Your task to perform on an android device: turn pop-ups on in chrome Image 0: 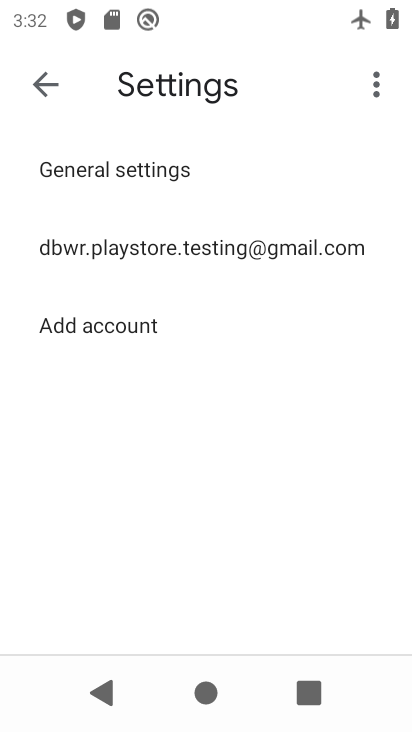
Step 0: press home button
Your task to perform on an android device: turn pop-ups on in chrome Image 1: 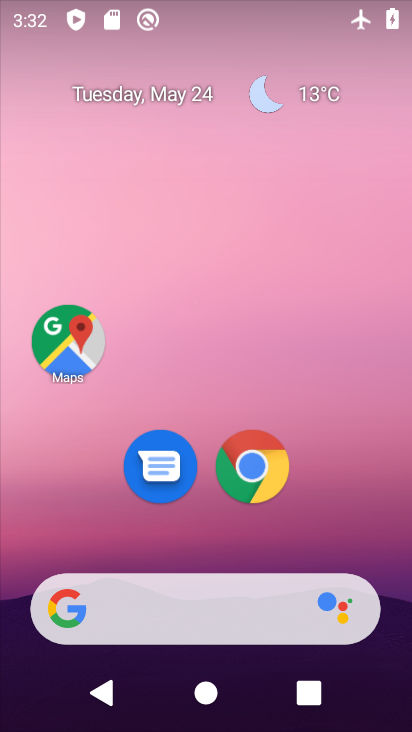
Step 1: click (257, 457)
Your task to perform on an android device: turn pop-ups on in chrome Image 2: 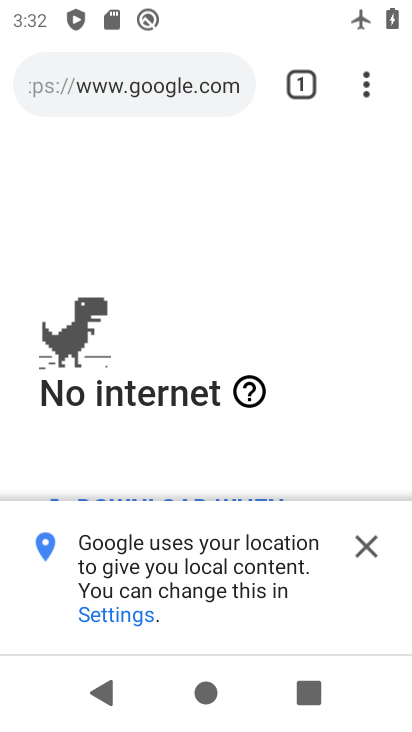
Step 2: drag from (327, 12) to (372, 0)
Your task to perform on an android device: turn pop-ups on in chrome Image 3: 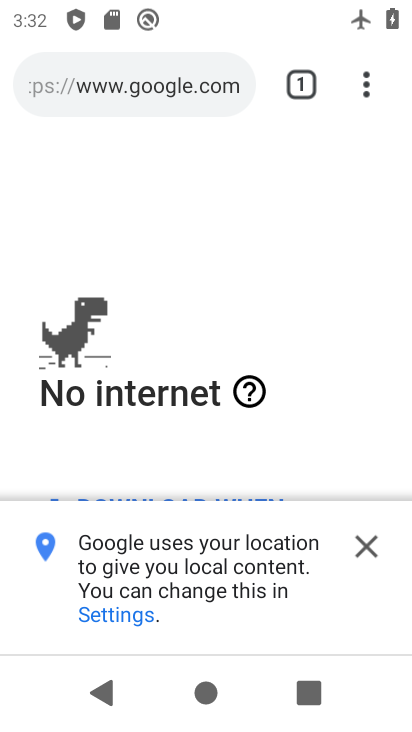
Step 3: click (366, 95)
Your task to perform on an android device: turn pop-ups on in chrome Image 4: 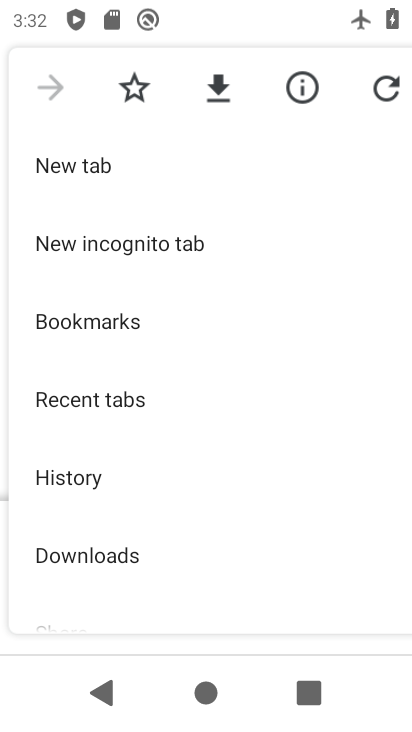
Step 4: drag from (248, 161) to (258, 128)
Your task to perform on an android device: turn pop-ups on in chrome Image 5: 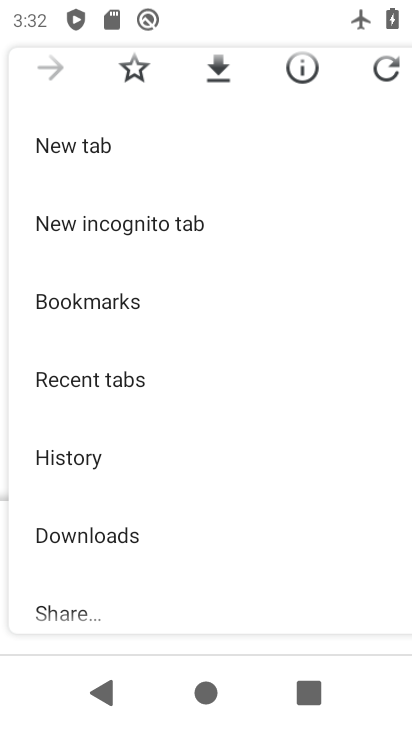
Step 5: drag from (185, 578) to (219, 140)
Your task to perform on an android device: turn pop-ups on in chrome Image 6: 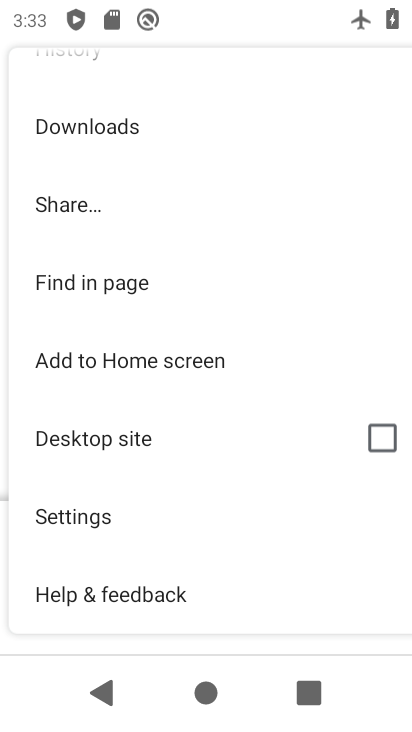
Step 6: drag from (143, 526) to (168, 343)
Your task to perform on an android device: turn pop-ups on in chrome Image 7: 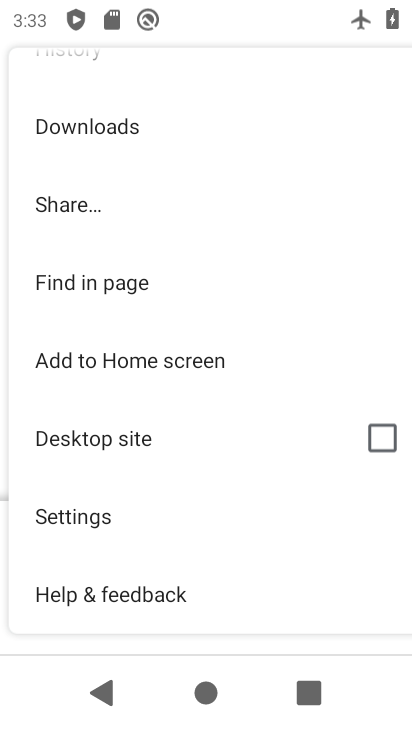
Step 7: click (87, 513)
Your task to perform on an android device: turn pop-ups on in chrome Image 8: 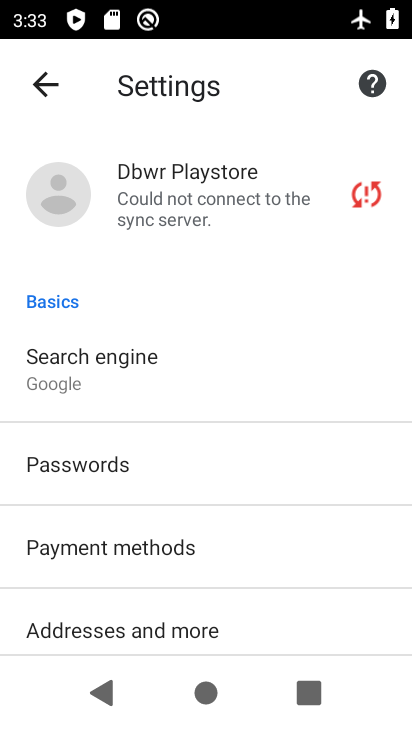
Step 8: drag from (224, 605) to (271, 250)
Your task to perform on an android device: turn pop-ups on in chrome Image 9: 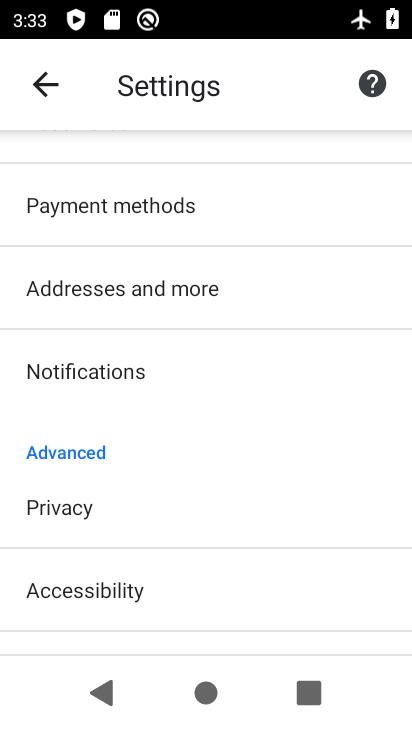
Step 9: drag from (215, 518) to (239, 233)
Your task to perform on an android device: turn pop-ups on in chrome Image 10: 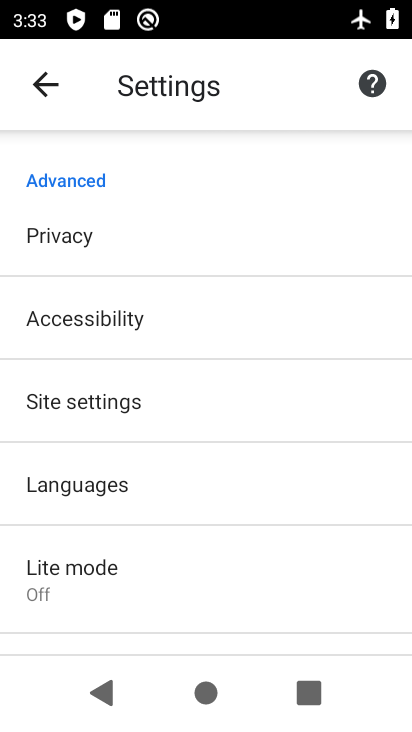
Step 10: click (103, 388)
Your task to perform on an android device: turn pop-ups on in chrome Image 11: 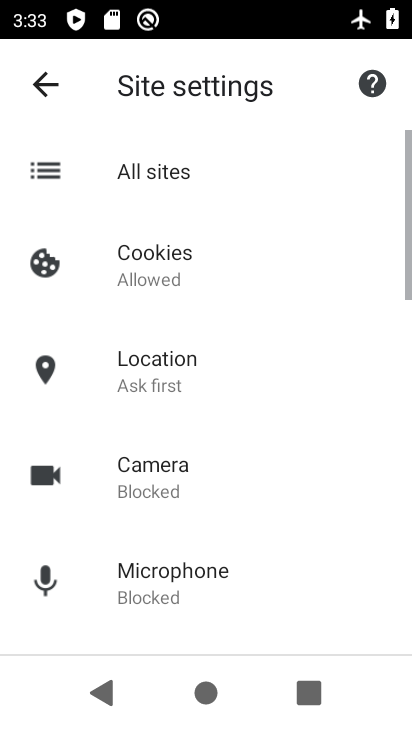
Step 11: drag from (294, 552) to (304, 125)
Your task to perform on an android device: turn pop-ups on in chrome Image 12: 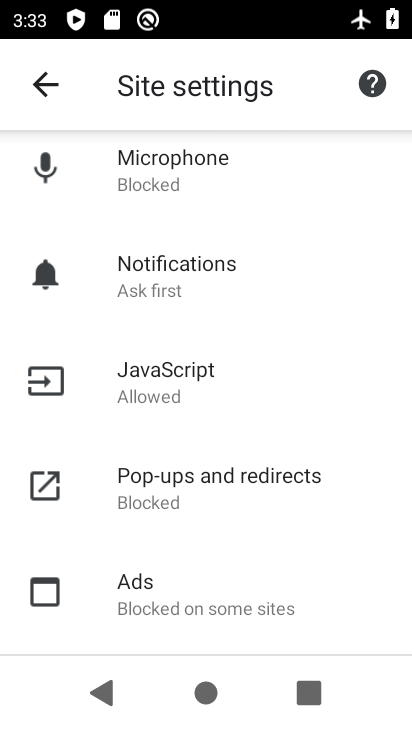
Step 12: click (208, 483)
Your task to perform on an android device: turn pop-ups on in chrome Image 13: 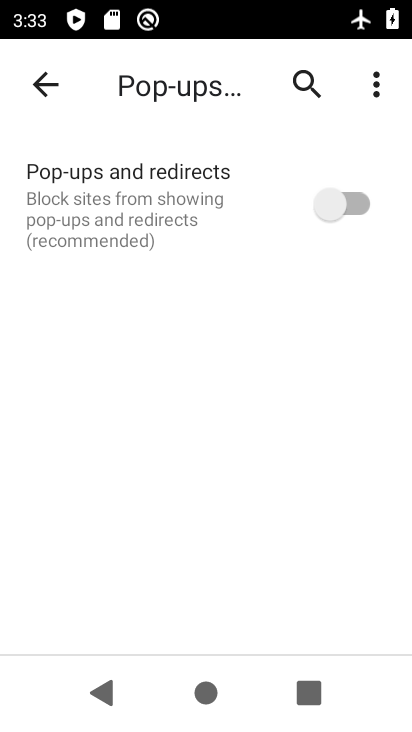
Step 13: click (336, 195)
Your task to perform on an android device: turn pop-ups on in chrome Image 14: 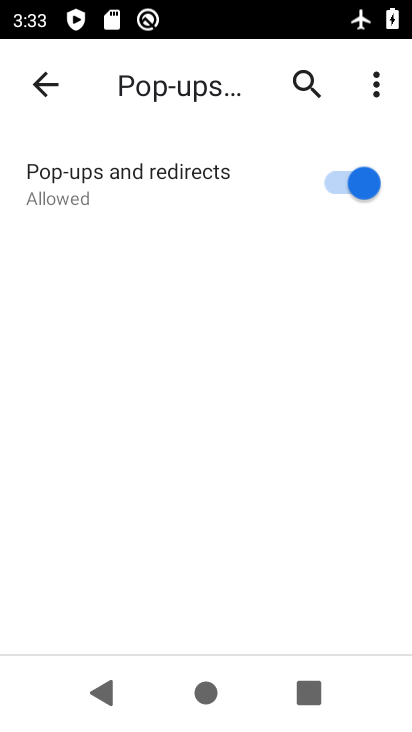
Step 14: task complete